Your task to perform on an android device: Open Google Chrome and open the bookmarks view Image 0: 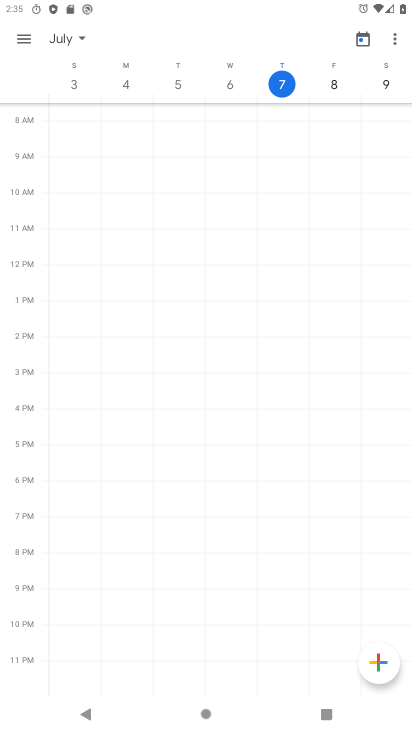
Step 0: press home button
Your task to perform on an android device: Open Google Chrome and open the bookmarks view Image 1: 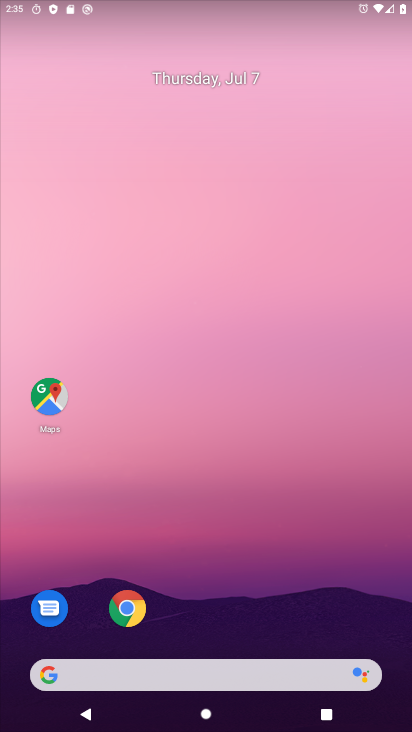
Step 1: click (133, 605)
Your task to perform on an android device: Open Google Chrome and open the bookmarks view Image 2: 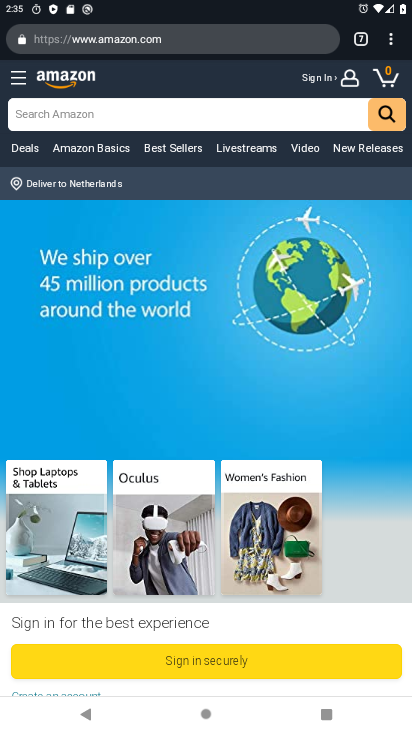
Step 2: click (394, 43)
Your task to perform on an android device: Open Google Chrome and open the bookmarks view Image 3: 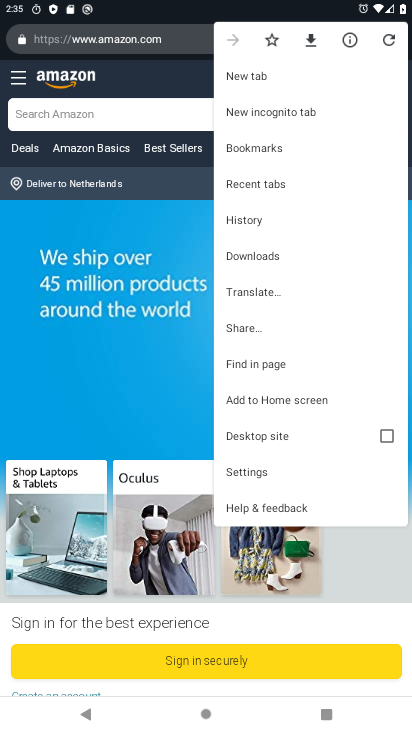
Step 3: click (257, 146)
Your task to perform on an android device: Open Google Chrome and open the bookmarks view Image 4: 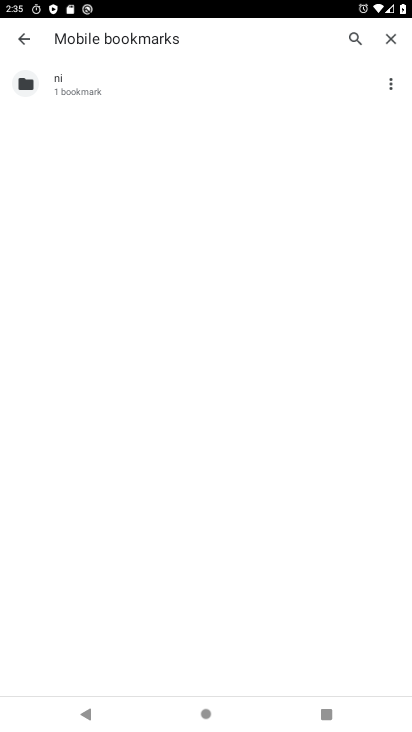
Step 4: click (118, 91)
Your task to perform on an android device: Open Google Chrome and open the bookmarks view Image 5: 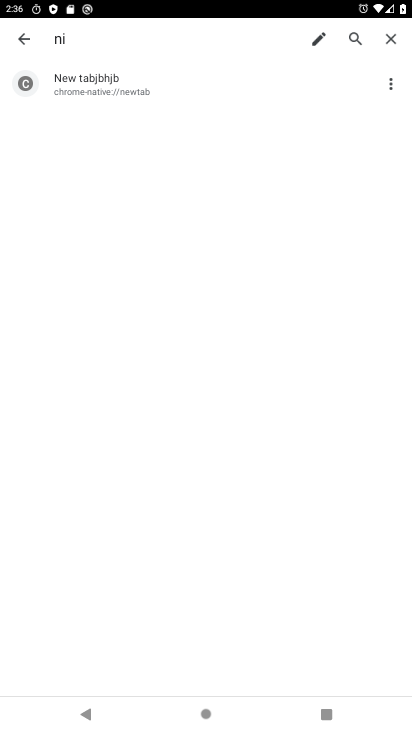
Step 5: task complete